Your task to perform on an android device: toggle show notifications on the lock screen Image 0: 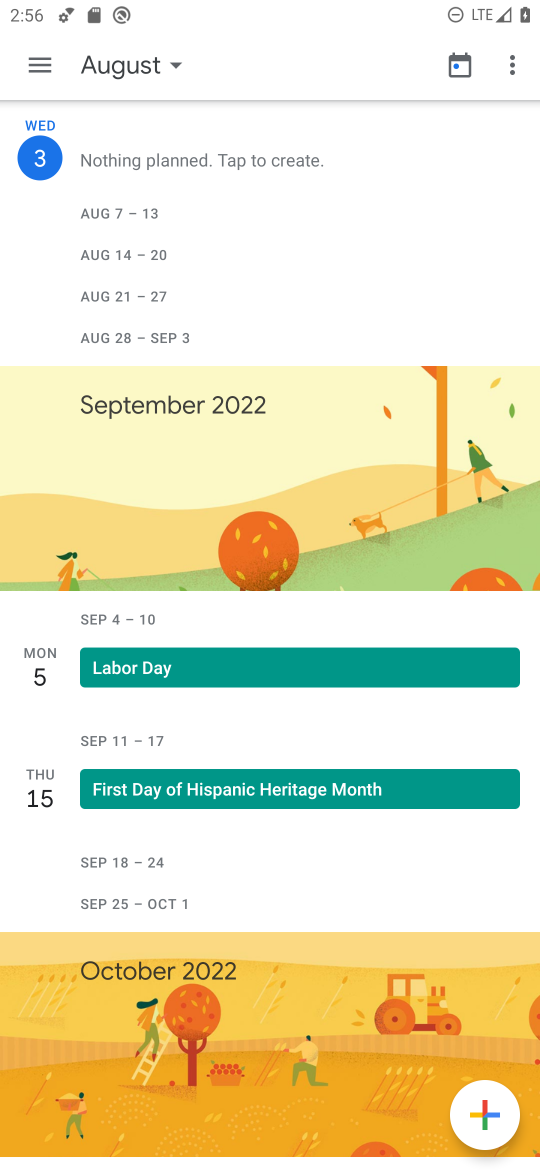
Step 0: press home button
Your task to perform on an android device: toggle show notifications on the lock screen Image 1: 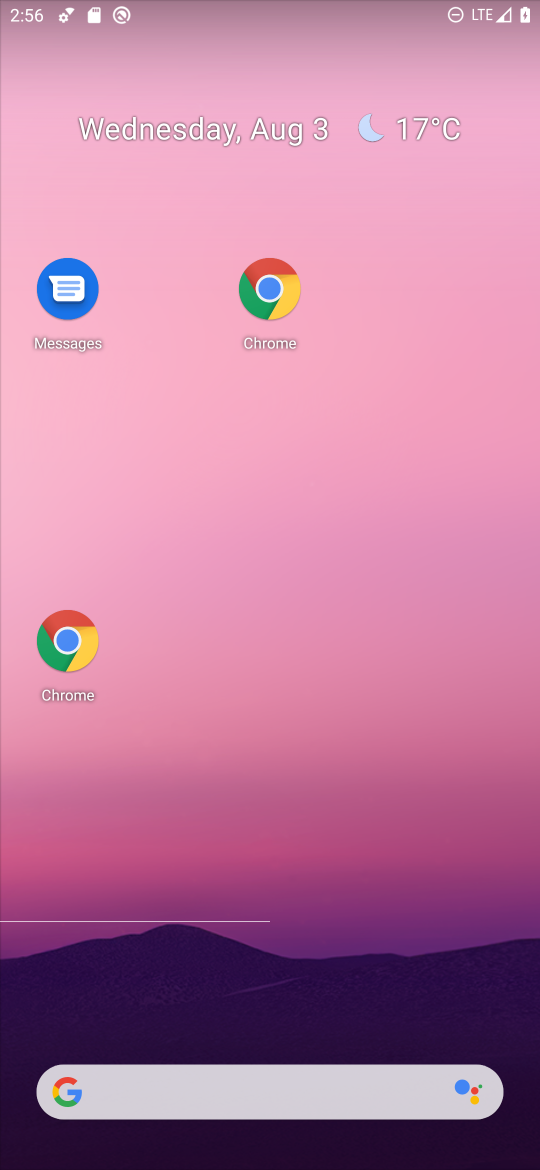
Step 1: drag from (368, 1047) to (326, 170)
Your task to perform on an android device: toggle show notifications on the lock screen Image 2: 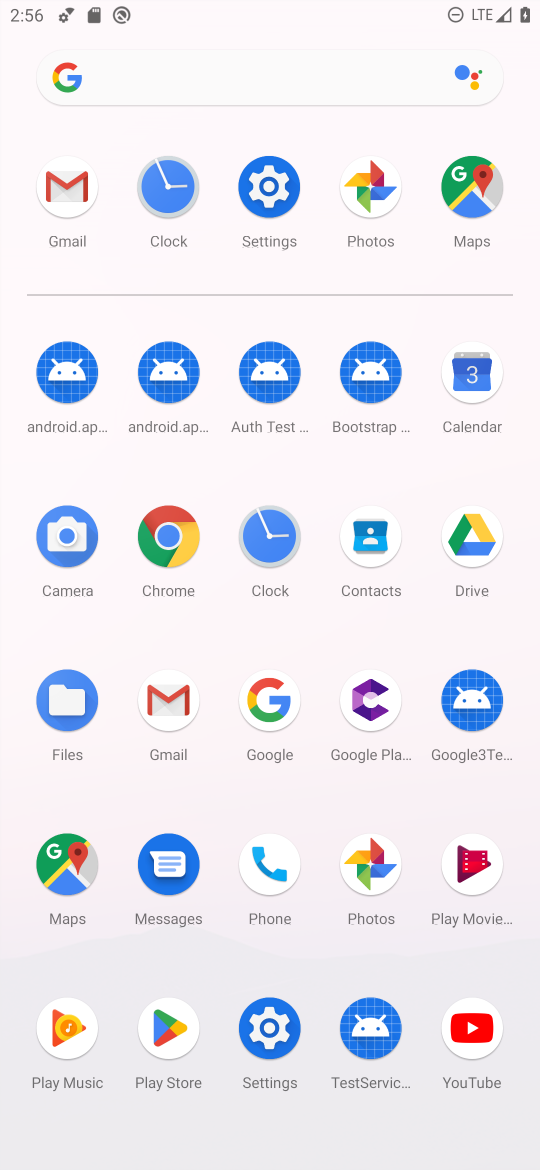
Step 2: click (292, 1045)
Your task to perform on an android device: toggle show notifications on the lock screen Image 3: 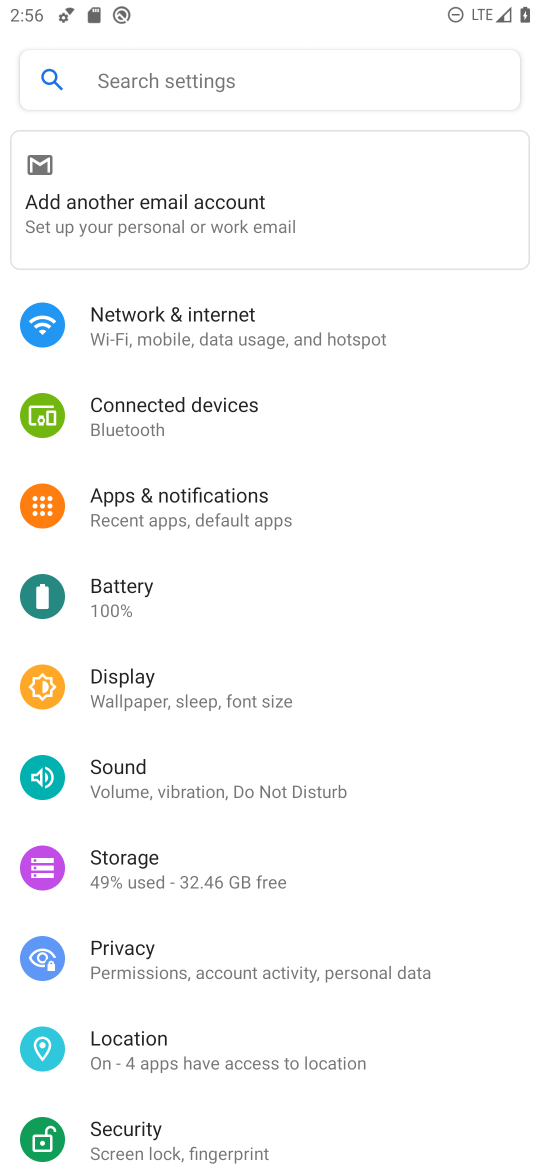
Step 3: click (166, 1043)
Your task to perform on an android device: toggle show notifications on the lock screen Image 4: 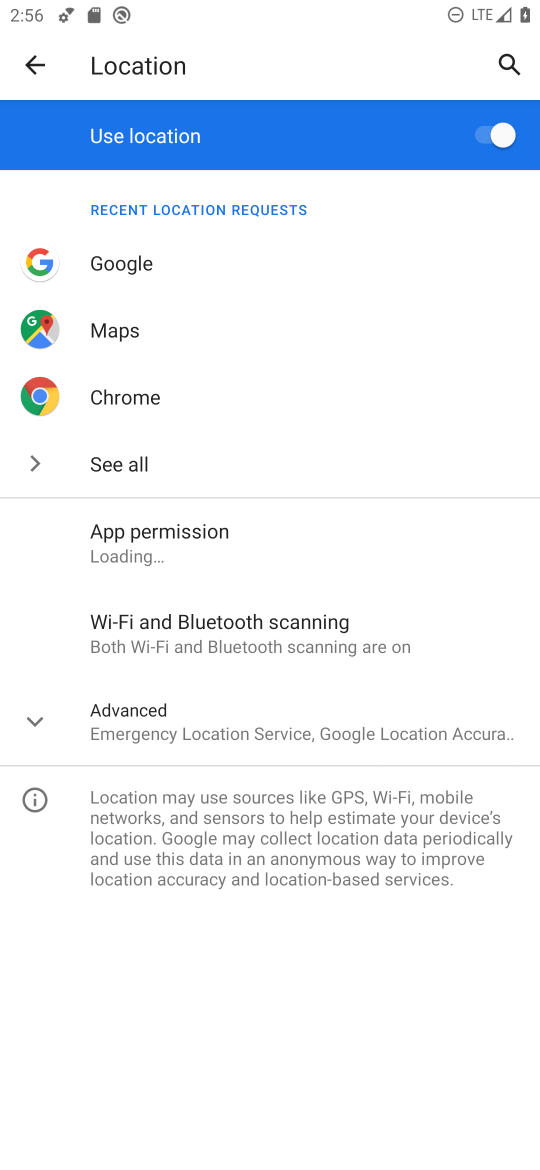
Step 4: task complete